Your task to perform on an android device: Open Google Maps Image 0: 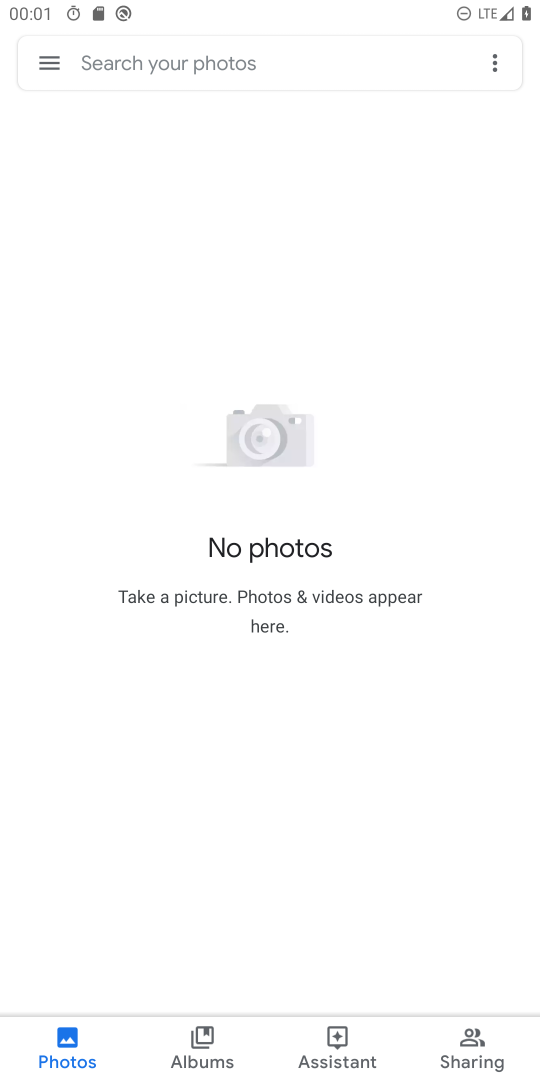
Step 0: press home button
Your task to perform on an android device: Open Google Maps Image 1: 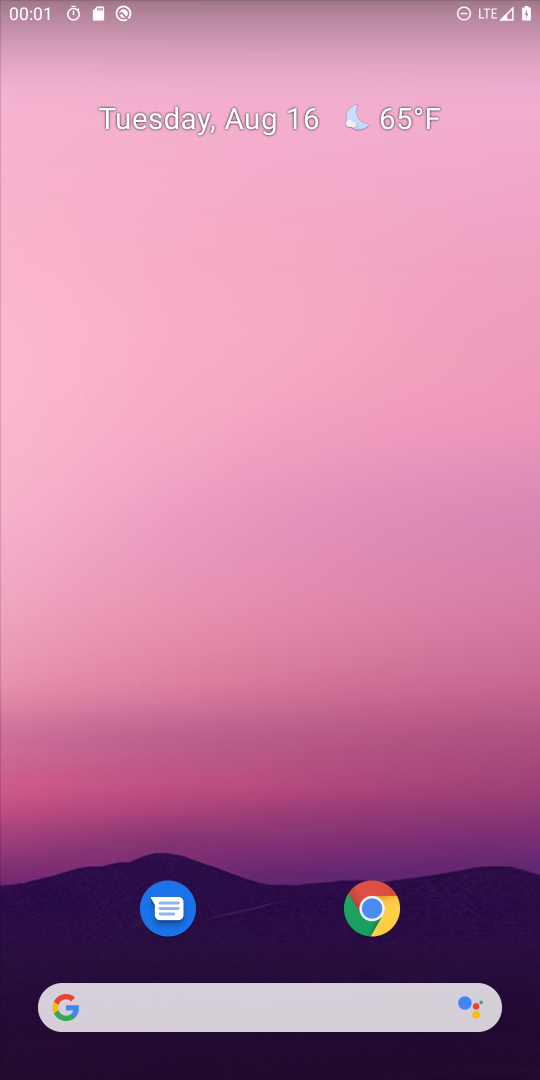
Step 1: drag from (218, 971) to (370, 4)
Your task to perform on an android device: Open Google Maps Image 2: 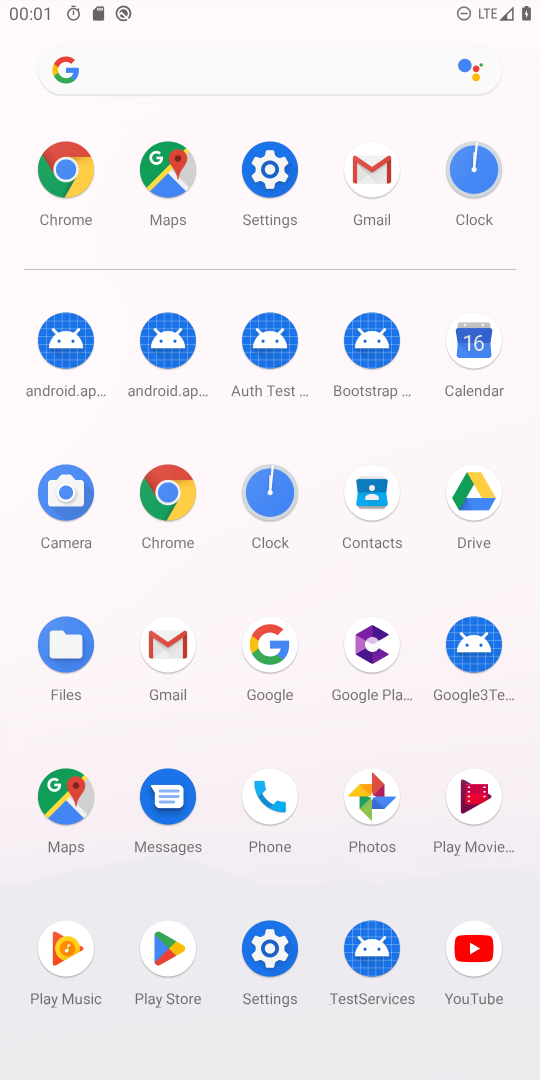
Step 2: click (176, 167)
Your task to perform on an android device: Open Google Maps Image 3: 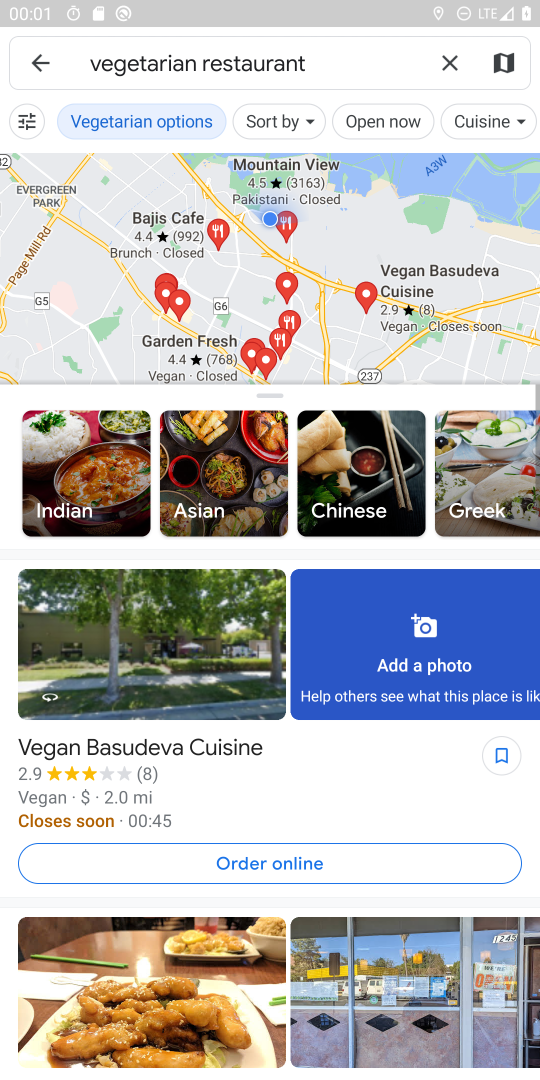
Step 3: task complete